Your task to perform on an android device: Open calendar and show me the fourth week of next month Image 0: 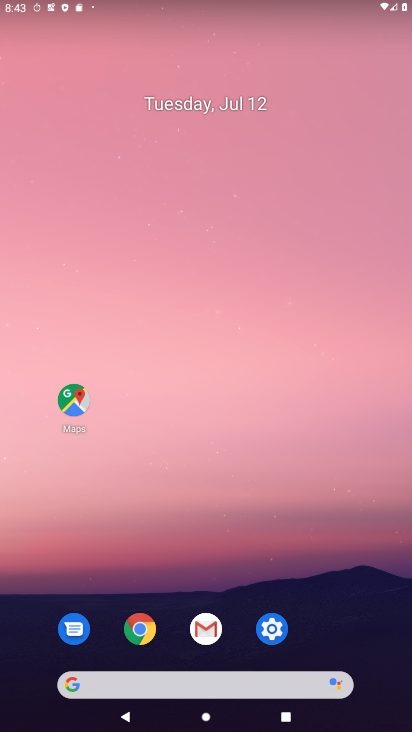
Step 0: press home button
Your task to perform on an android device: Open calendar and show me the fourth week of next month Image 1: 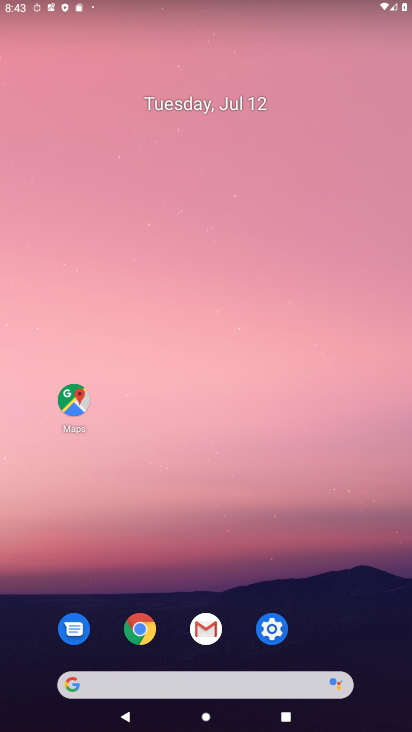
Step 1: drag from (249, 691) to (184, 234)
Your task to perform on an android device: Open calendar and show me the fourth week of next month Image 2: 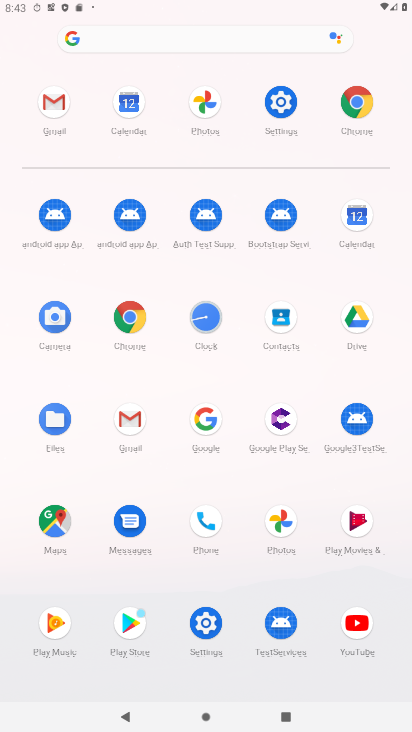
Step 2: click (358, 227)
Your task to perform on an android device: Open calendar and show me the fourth week of next month Image 3: 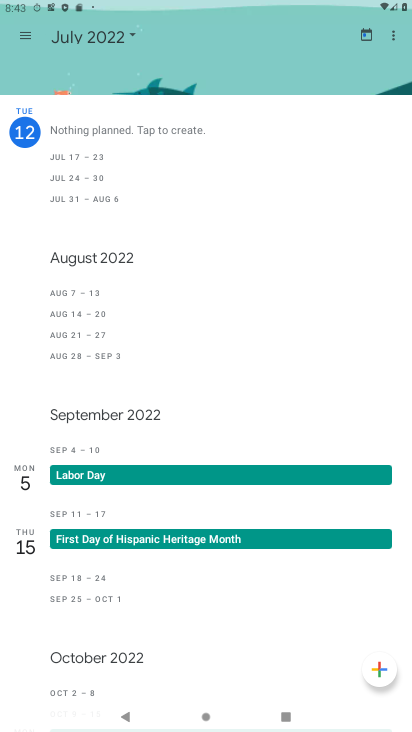
Step 3: click (16, 32)
Your task to perform on an android device: Open calendar and show me the fourth week of next month Image 4: 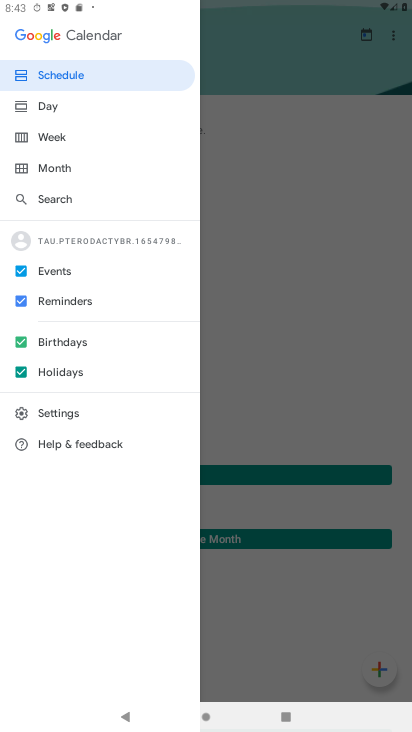
Step 4: click (112, 414)
Your task to perform on an android device: Open calendar and show me the fourth week of next month Image 5: 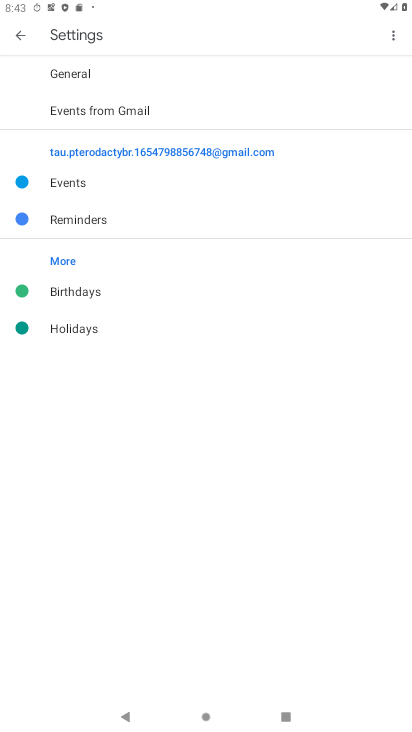
Step 5: click (32, 36)
Your task to perform on an android device: Open calendar and show me the fourth week of next month Image 6: 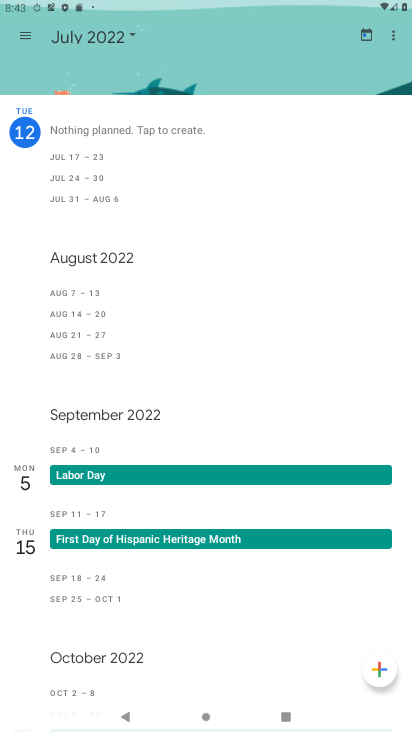
Step 6: click (39, 31)
Your task to perform on an android device: Open calendar and show me the fourth week of next month Image 7: 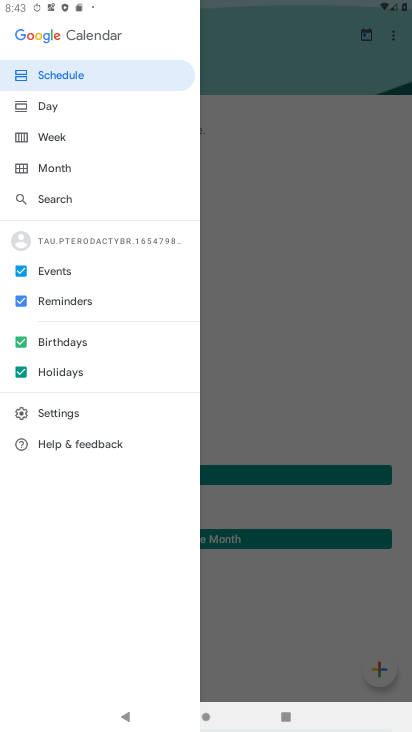
Step 7: click (65, 174)
Your task to perform on an android device: Open calendar and show me the fourth week of next month Image 8: 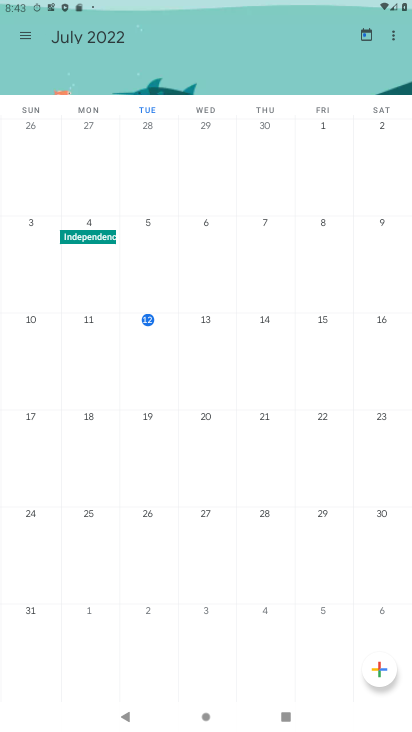
Step 8: drag from (378, 337) to (2, 421)
Your task to perform on an android device: Open calendar and show me the fourth week of next month Image 9: 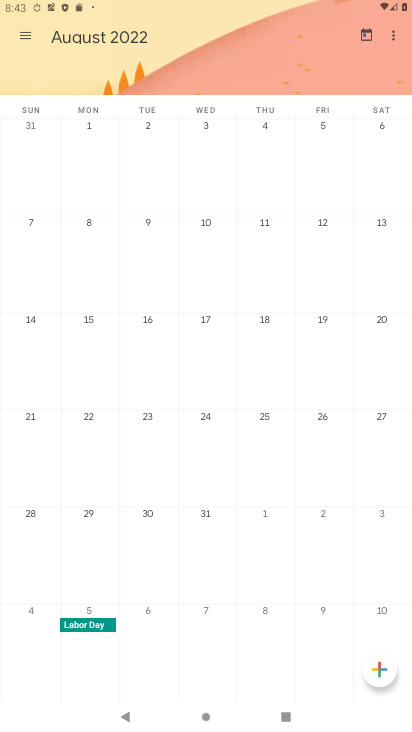
Step 9: click (91, 431)
Your task to perform on an android device: Open calendar and show me the fourth week of next month Image 10: 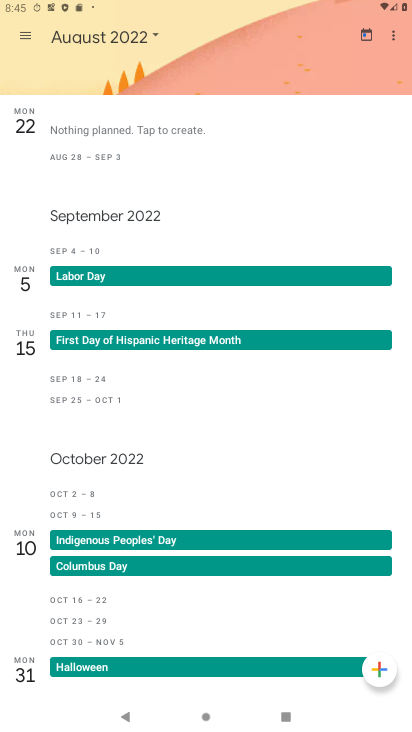
Step 10: task complete